Your task to perform on an android device: make emails show in primary in the gmail app Image 0: 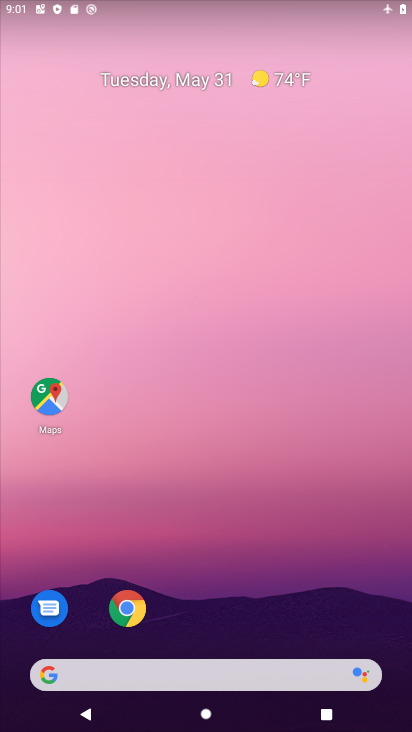
Step 0: drag from (228, 653) to (137, 1)
Your task to perform on an android device: make emails show in primary in the gmail app Image 1: 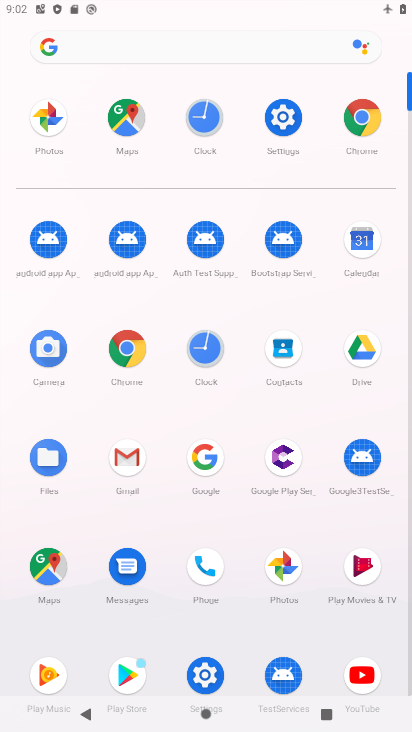
Step 1: click (129, 450)
Your task to perform on an android device: make emails show in primary in the gmail app Image 2: 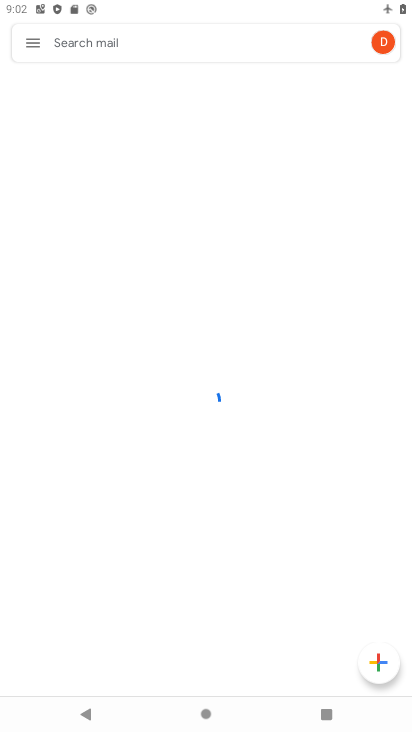
Step 2: click (36, 55)
Your task to perform on an android device: make emails show in primary in the gmail app Image 3: 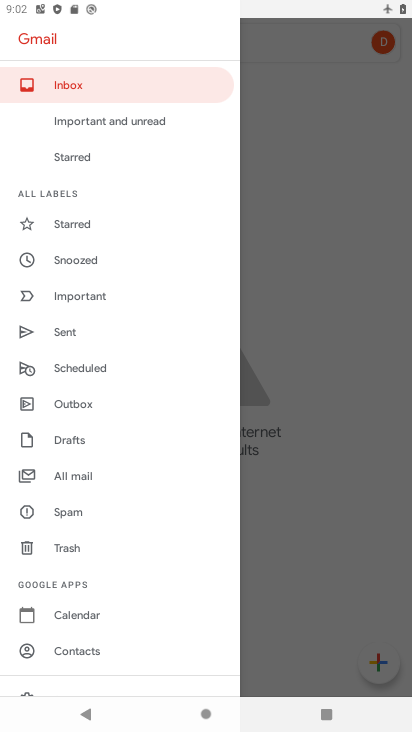
Step 3: drag from (85, 641) to (30, 405)
Your task to perform on an android device: make emails show in primary in the gmail app Image 4: 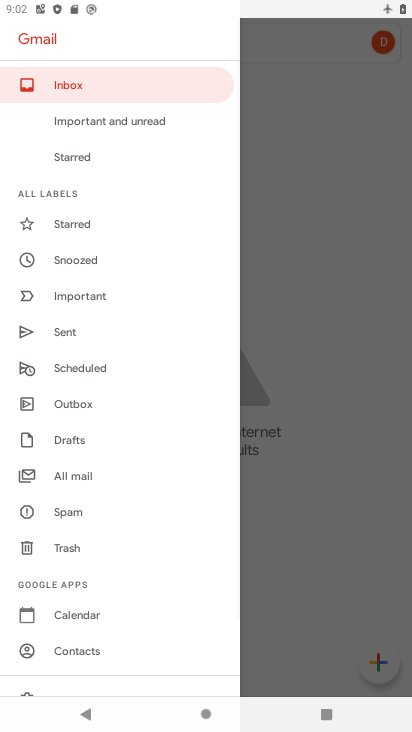
Step 4: drag from (79, 647) to (90, 241)
Your task to perform on an android device: make emails show in primary in the gmail app Image 5: 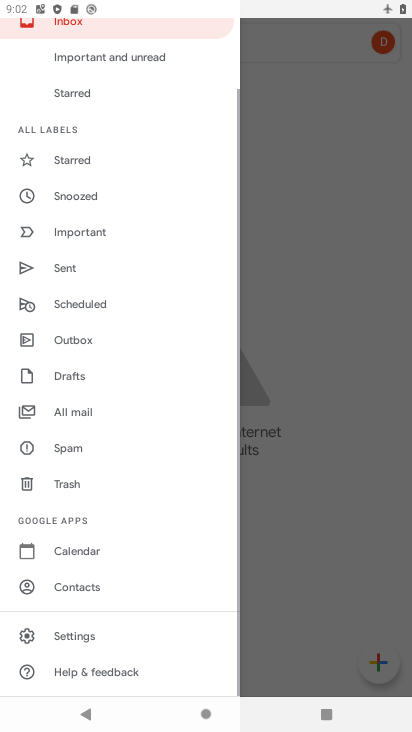
Step 5: click (74, 632)
Your task to perform on an android device: make emails show in primary in the gmail app Image 6: 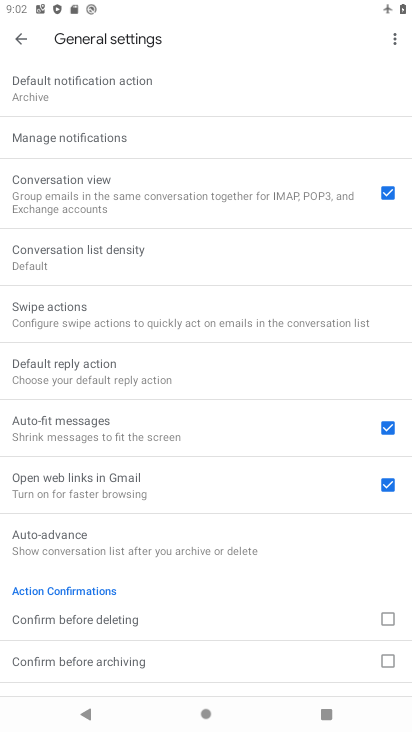
Step 6: click (17, 29)
Your task to perform on an android device: make emails show in primary in the gmail app Image 7: 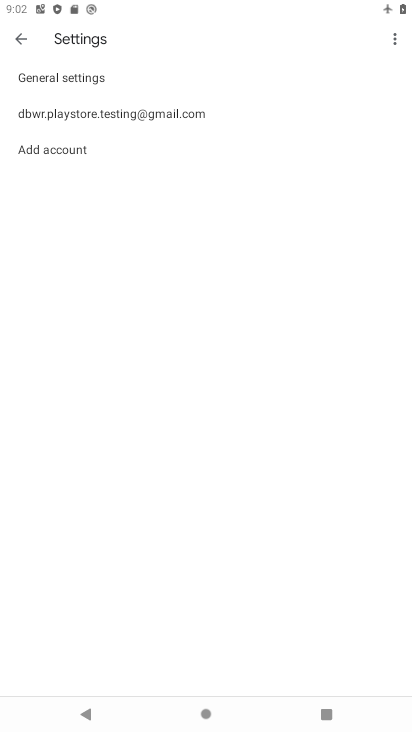
Step 7: click (42, 123)
Your task to perform on an android device: make emails show in primary in the gmail app Image 8: 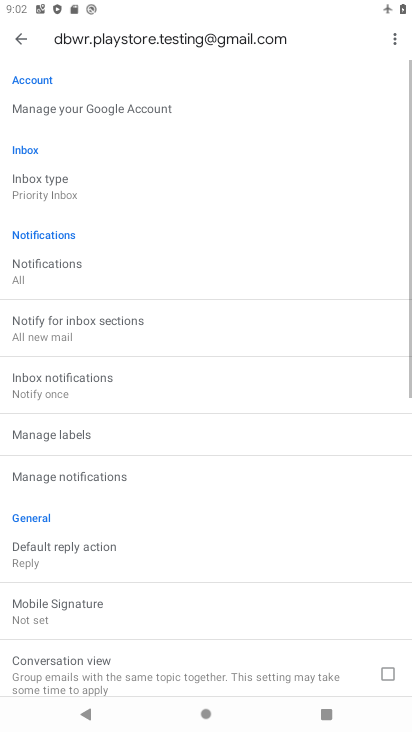
Step 8: click (36, 188)
Your task to perform on an android device: make emails show in primary in the gmail app Image 9: 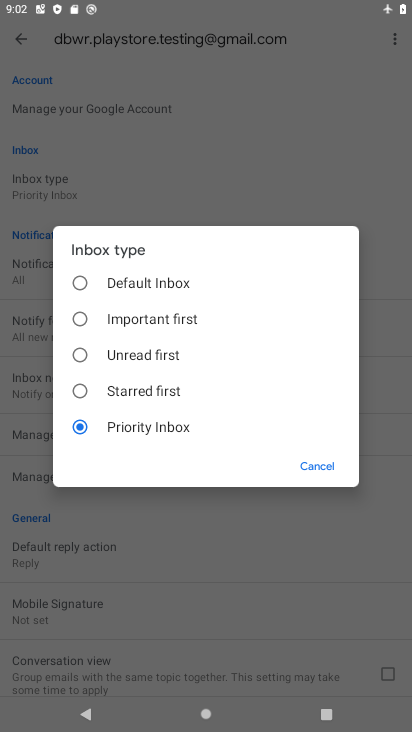
Step 9: click (85, 282)
Your task to perform on an android device: make emails show in primary in the gmail app Image 10: 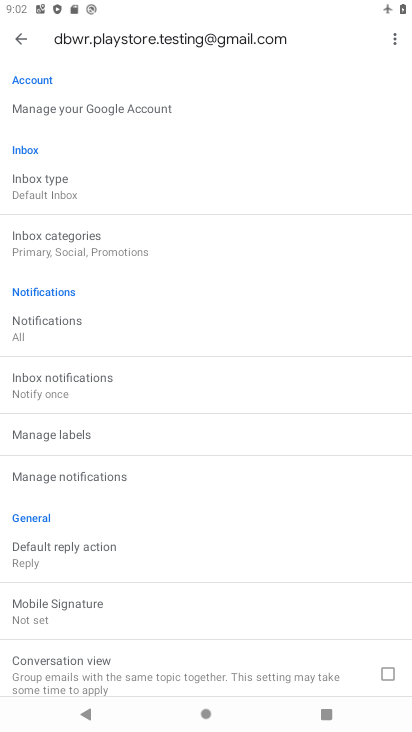
Step 10: click (17, 47)
Your task to perform on an android device: make emails show in primary in the gmail app Image 11: 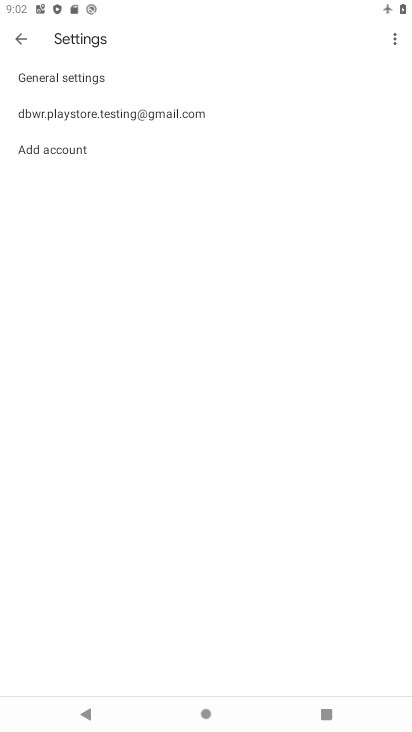
Step 11: click (17, 47)
Your task to perform on an android device: make emails show in primary in the gmail app Image 12: 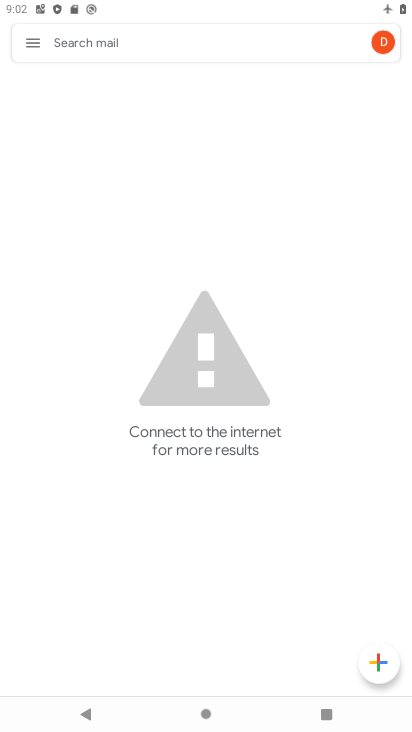
Step 12: task complete